Your task to perform on an android device: Go to accessibility settings Image 0: 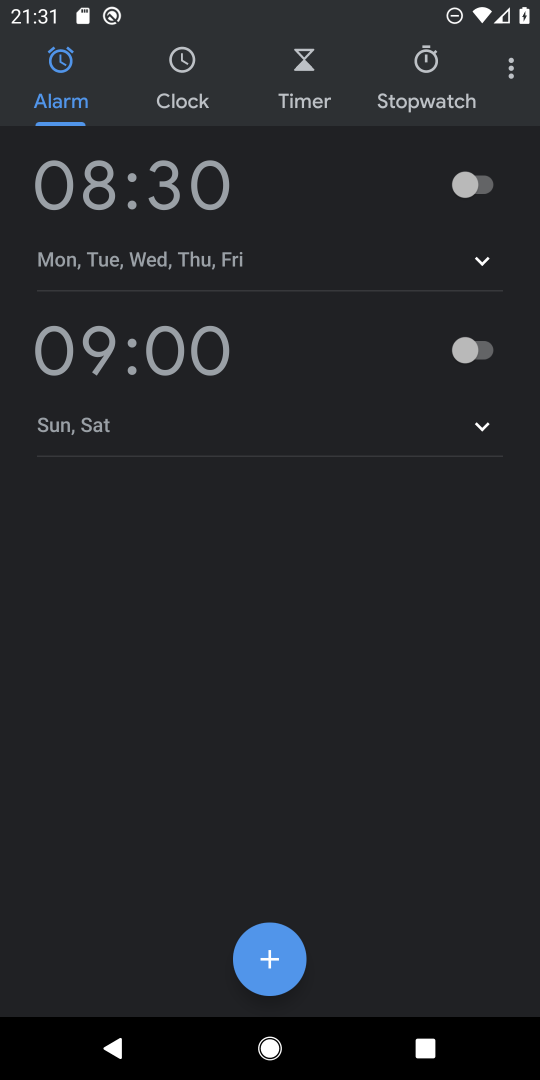
Step 0: press home button
Your task to perform on an android device: Go to accessibility settings Image 1: 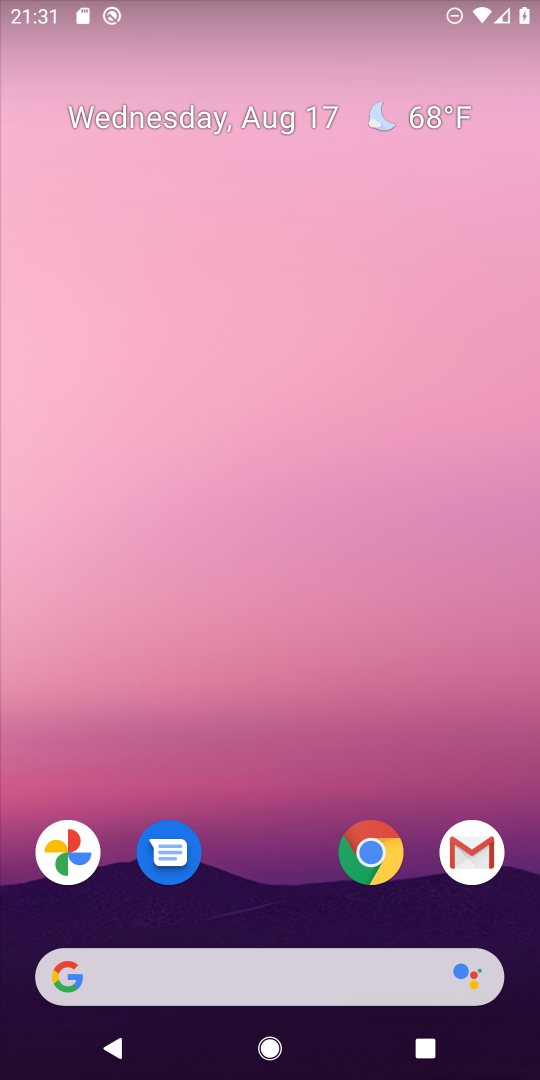
Step 1: drag from (291, 859) to (206, 136)
Your task to perform on an android device: Go to accessibility settings Image 2: 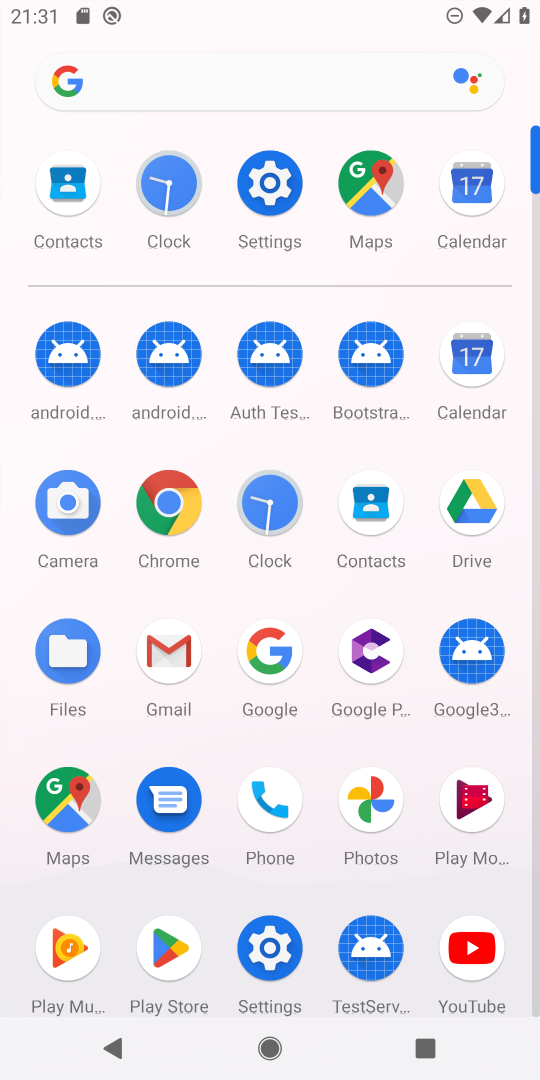
Step 2: click (275, 184)
Your task to perform on an android device: Go to accessibility settings Image 3: 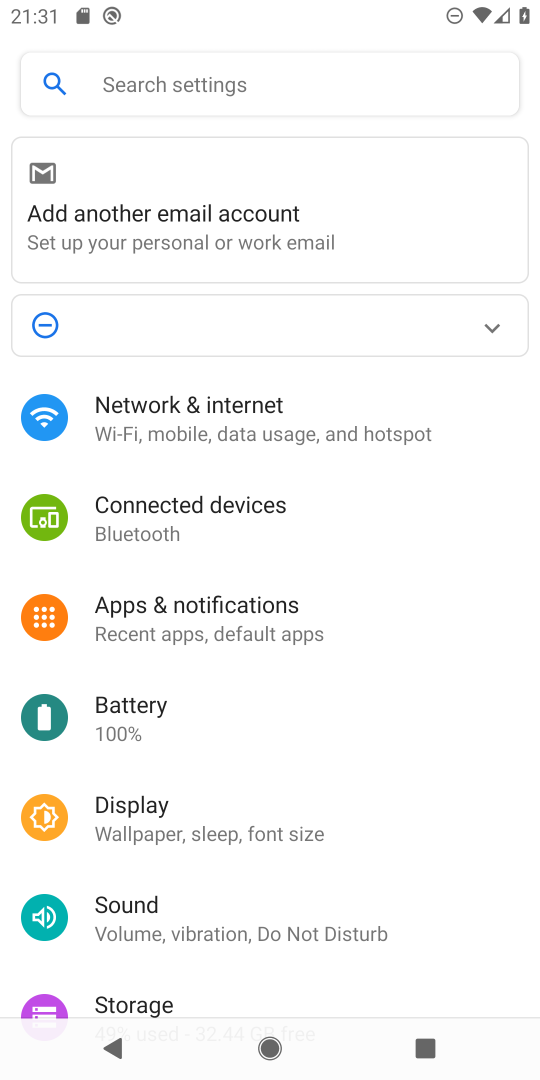
Step 3: drag from (270, 976) to (235, 515)
Your task to perform on an android device: Go to accessibility settings Image 4: 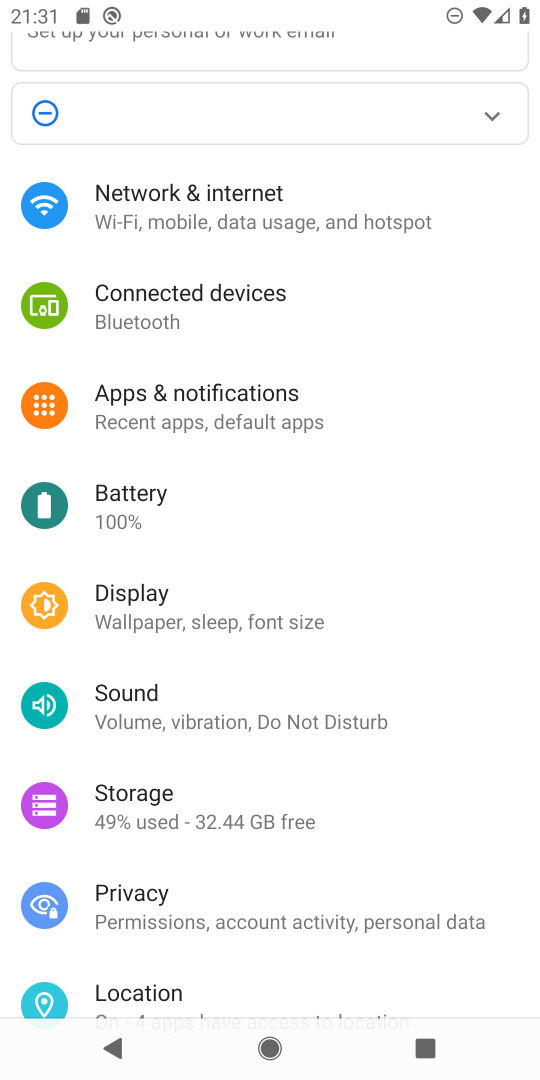
Step 4: drag from (273, 871) to (221, 455)
Your task to perform on an android device: Go to accessibility settings Image 5: 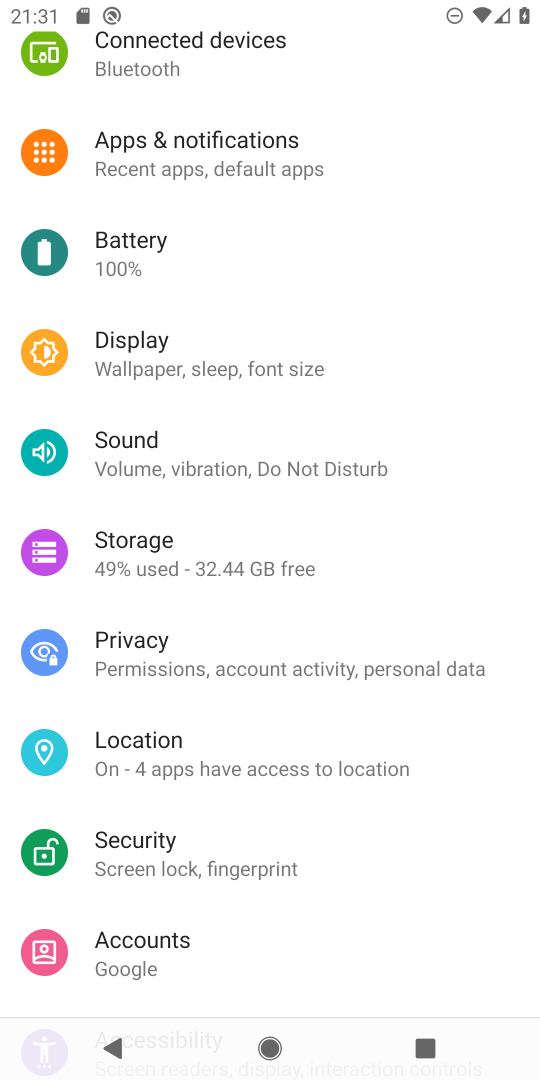
Step 5: drag from (295, 884) to (244, 400)
Your task to perform on an android device: Go to accessibility settings Image 6: 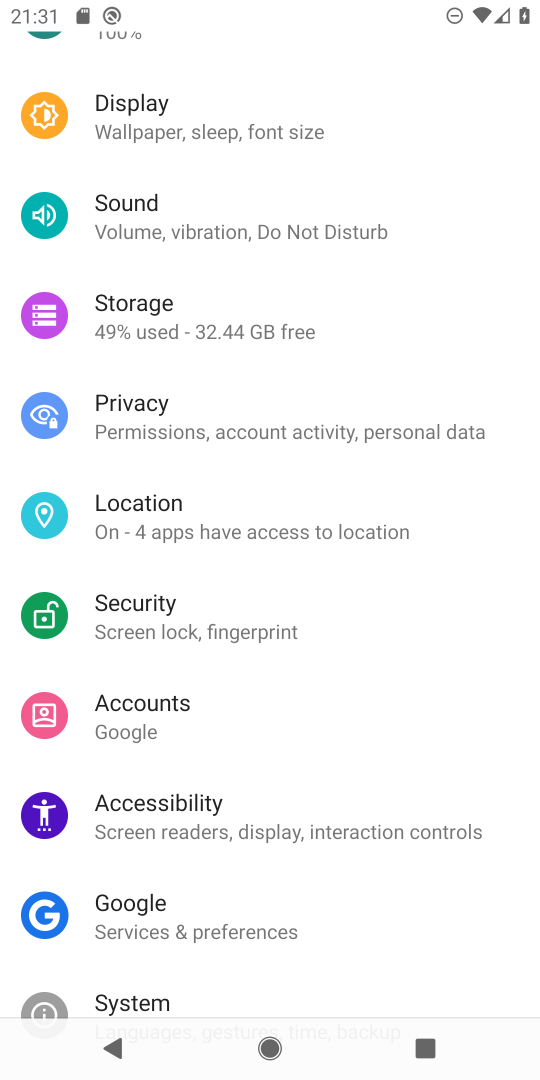
Step 6: click (186, 799)
Your task to perform on an android device: Go to accessibility settings Image 7: 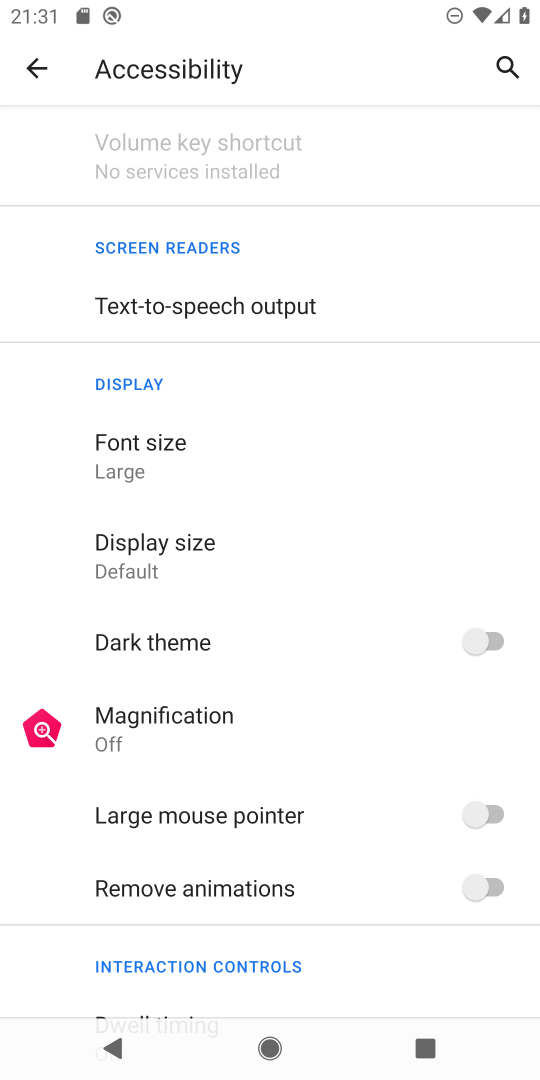
Step 7: task complete